Your task to perform on an android device: When is my next meeting? Image 0: 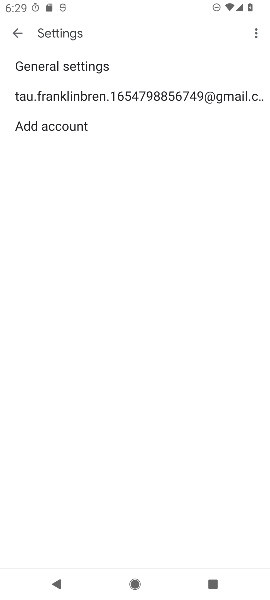
Step 0: press home button
Your task to perform on an android device: When is my next meeting? Image 1: 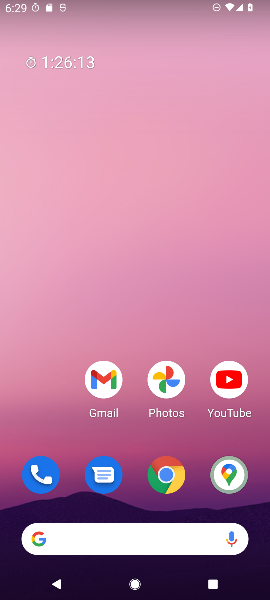
Step 1: drag from (54, 423) to (56, 200)
Your task to perform on an android device: When is my next meeting? Image 2: 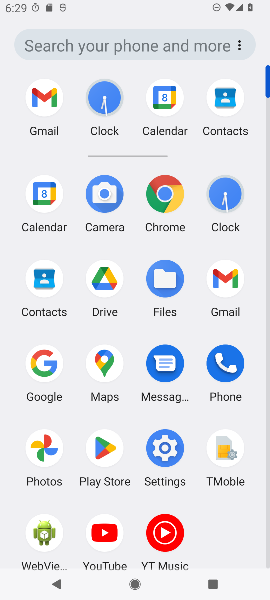
Step 2: click (42, 198)
Your task to perform on an android device: When is my next meeting? Image 3: 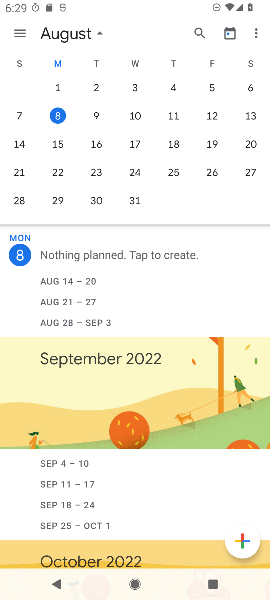
Step 3: task complete